Your task to perform on an android device: Do I have any events today? Image 0: 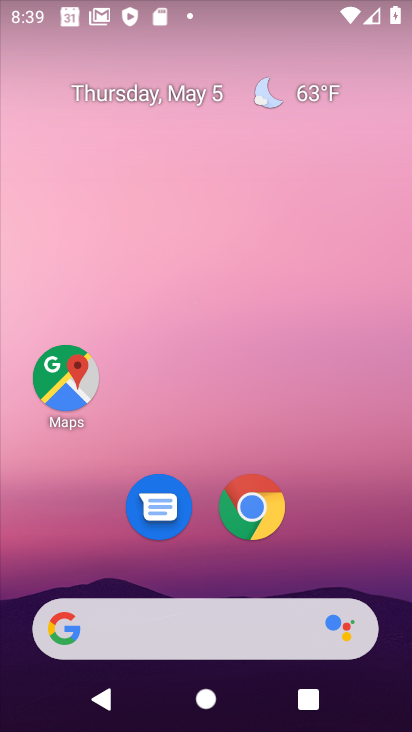
Step 0: drag from (314, 497) to (314, 4)
Your task to perform on an android device: Do I have any events today? Image 1: 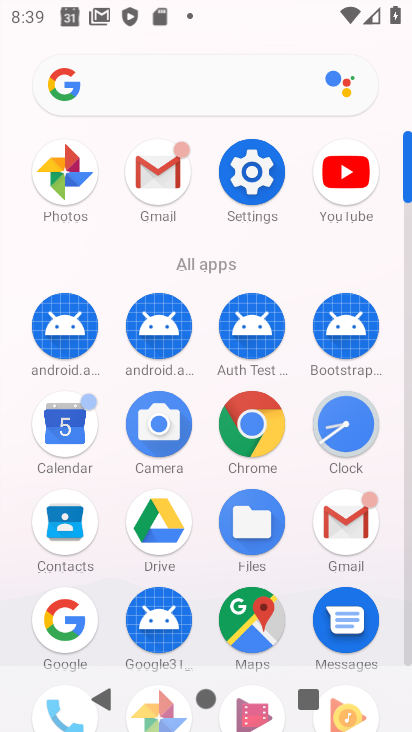
Step 1: click (73, 446)
Your task to perform on an android device: Do I have any events today? Image 2: 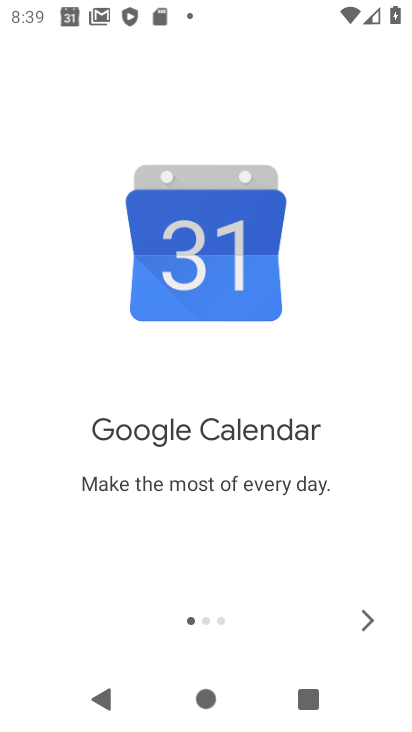
Step 2: click (372, 610)
Your task to perform on an android device: Do I have any events today? Image 3: 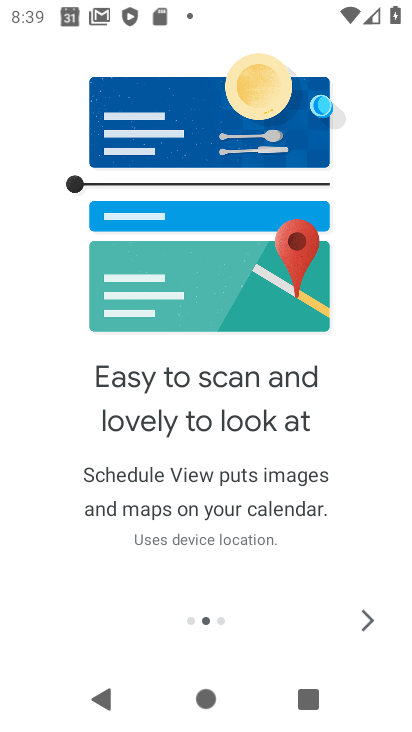
Step 3: click (372, 610)
Your task to perform on an android device: Do I have any events today? Image 4: 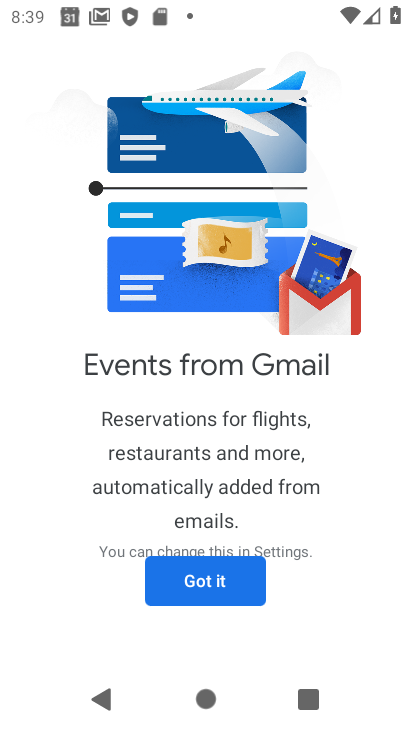
Step 4: click (241, 571)
Your task to perform on an android device: Do I have any events today? Image 5: 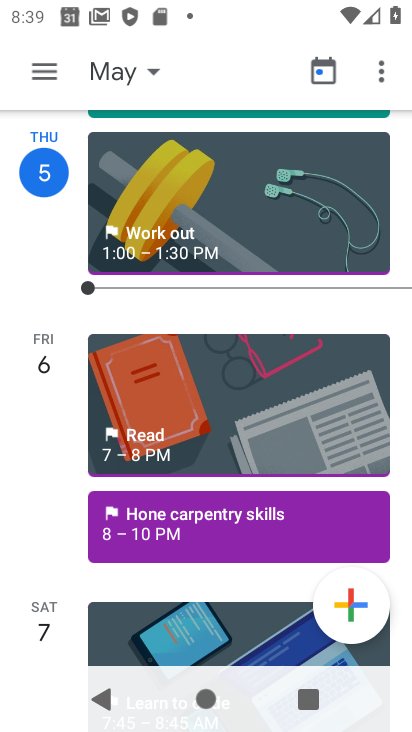
Step 5: click (51, 71)
Your task to perform on an android device: Do I have any events today? Image 6: 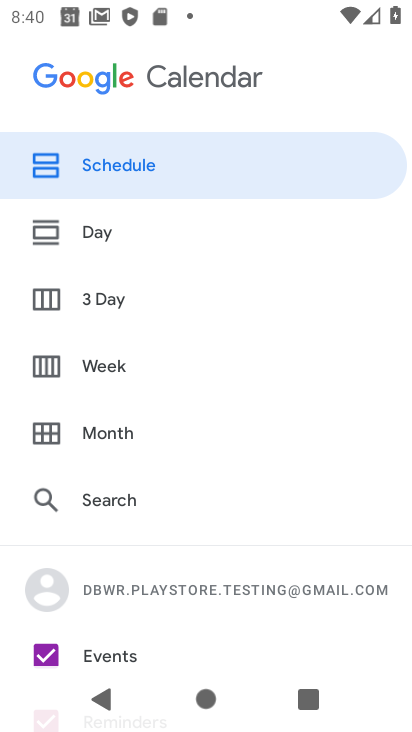
Step 6: click (100, 238)
Your task to perform on an android device: Do I have any events today? Image 7: 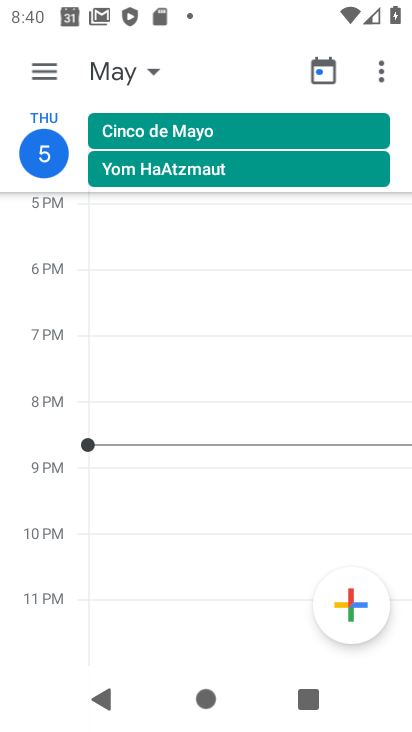
Step 7: task complete